Your task to perform on an android device: Open calendar and show me the second week of next month Image 0: 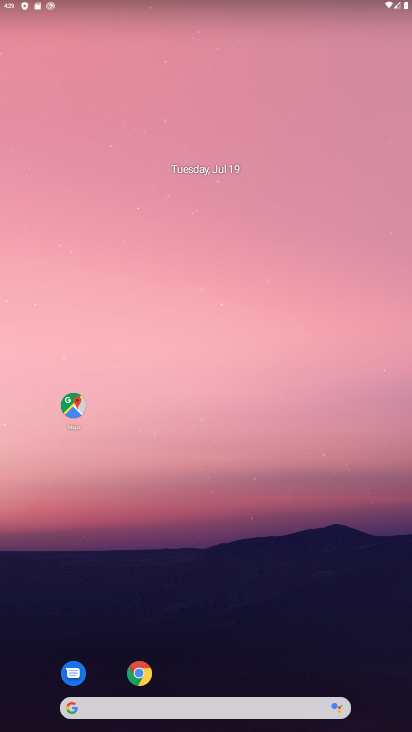
Step 0: drag from (208, 646) to (256, 86)
Your task to perform on an android device: Open calendar and show me the second week of next month Image 1: 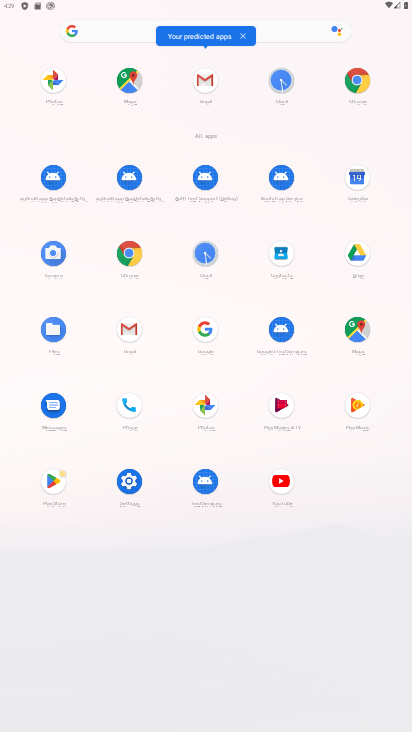
Step 1: click (364, 184)
Your task to perform on an android device: Open calendar and show me the second week of next month Image 2: 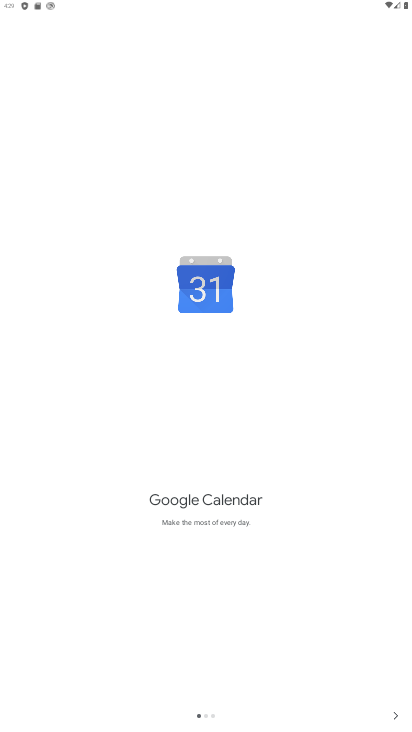
Step 2: click (389, 709)
Your task to perform on an android device: Open calendar and show me the second week of next month Image 3: 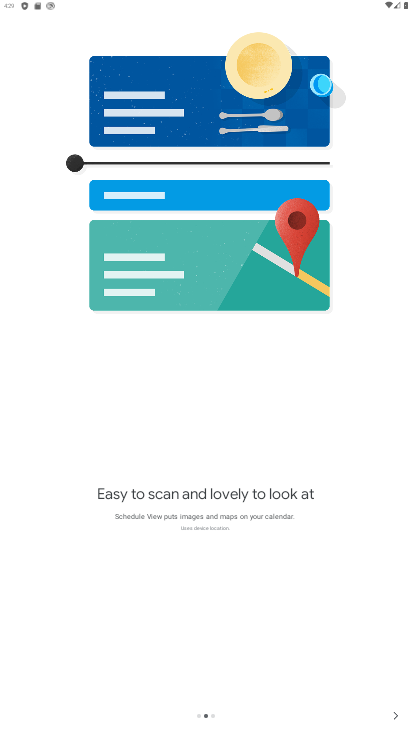
Step 3: click (399, 707)
Your task to perform on an android device: Open calendar and show me the second week of next month Image 4: 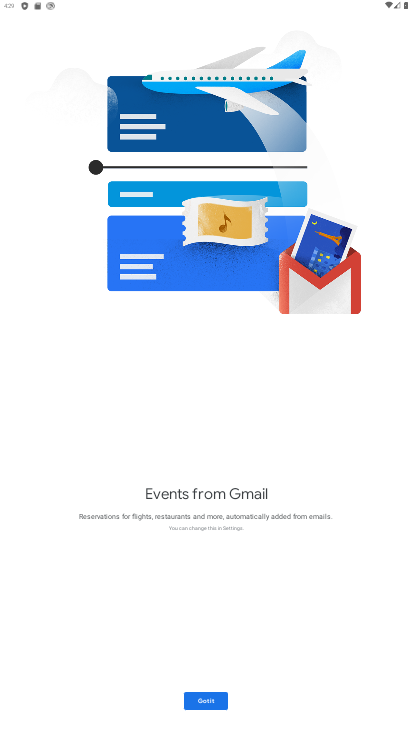
Step 4: click (208, 700)
Your task to perform on an android device: Open calendar and show me the second week of next month Image 5: 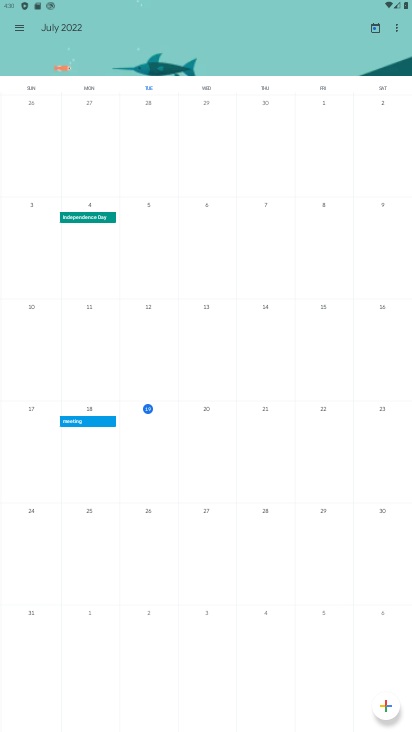
Step 5: click (53, 28)
Your task to perform on an android device: Open calendar and show me the second week of next month Image 6: 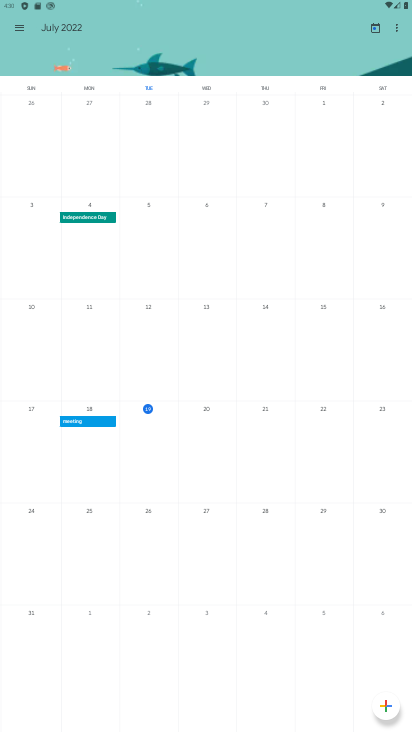
Step 6: click (19, 28)
Your task to perform on an android device: Open calendar and show me the second week of next month Image 7: 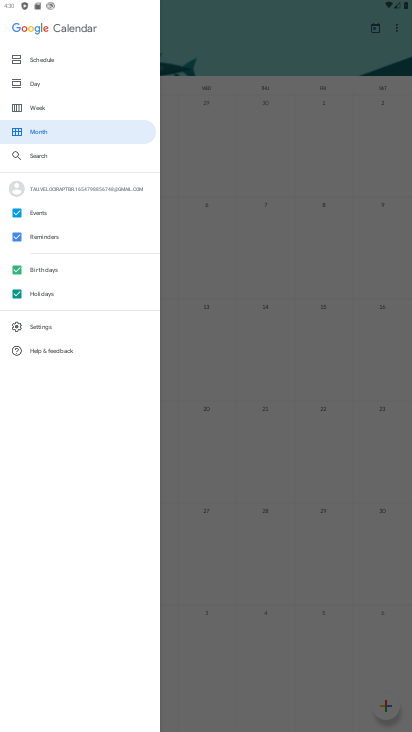
Step 7: click (48, 107)
Your task to perform on an android device: Open calendar and show me the second week of next month Image 8: 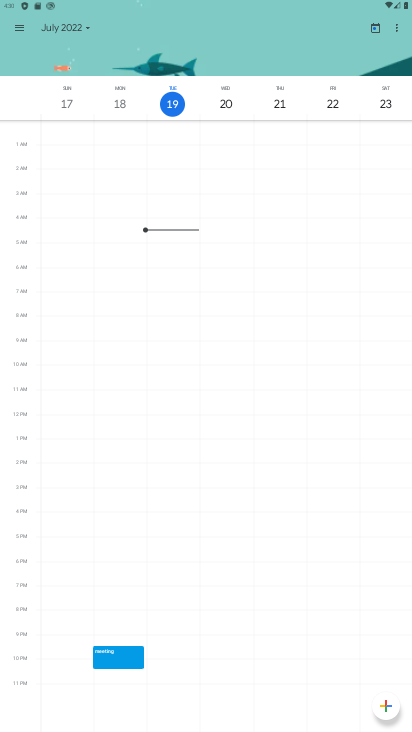
Step 8: task complete